Your task to perform on an android device: Open the calendar and show me this week's events Image 0: 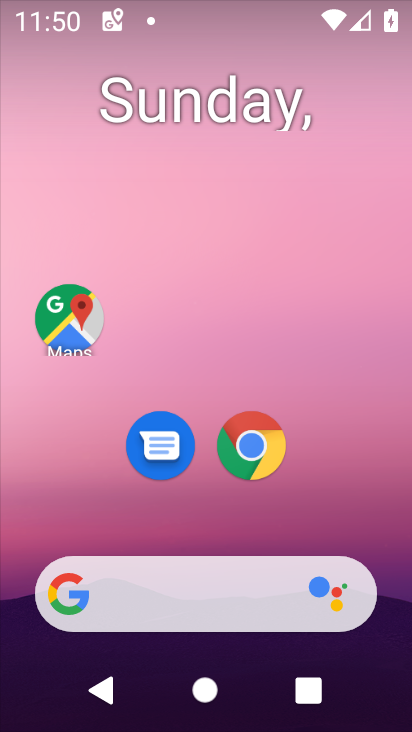
Step 0: drag from (334, 504) to (301, 35)
Your task to perform on an android device: Open the calendar and show me this week's events Image 1: 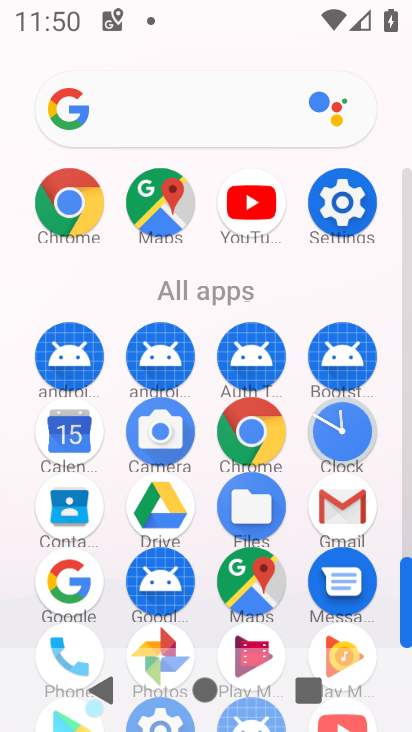
Step 1: click (71, 436)
Your task to perform on an android device: Open the calendar and show me this week's events Image 2: 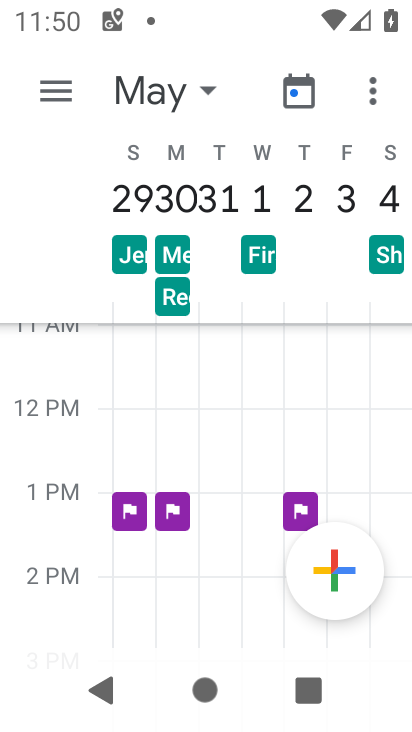
Step 2: drag from (186, 532) to (227, 581)
Your task to perform on an android device: Open the calendar and show me this week's events Image 3: 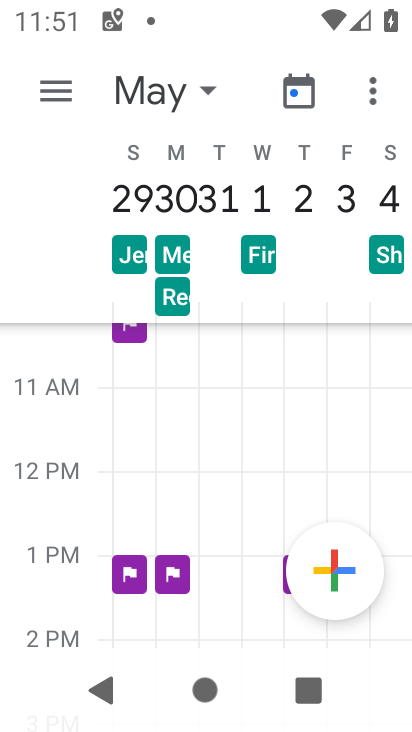
Step 3: drag from (162, 390) to (198, 582)
Your task to perform on an android device: Open the calendar and show me this week's events Image 4: 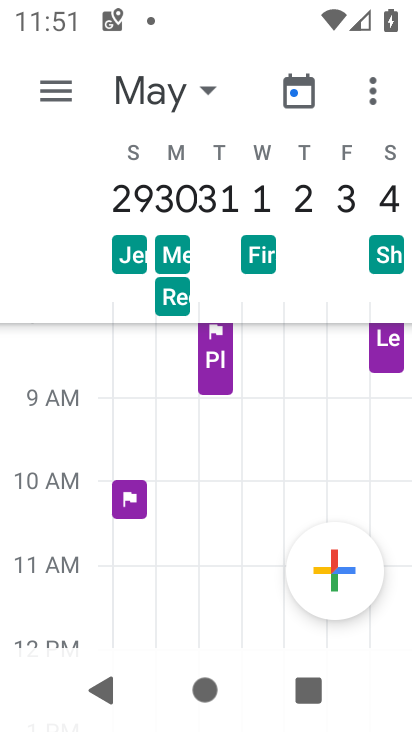
Step 4: click (67, 84)
Your task to perform on an android device: Open the calendar and show me this week's events Image 5: 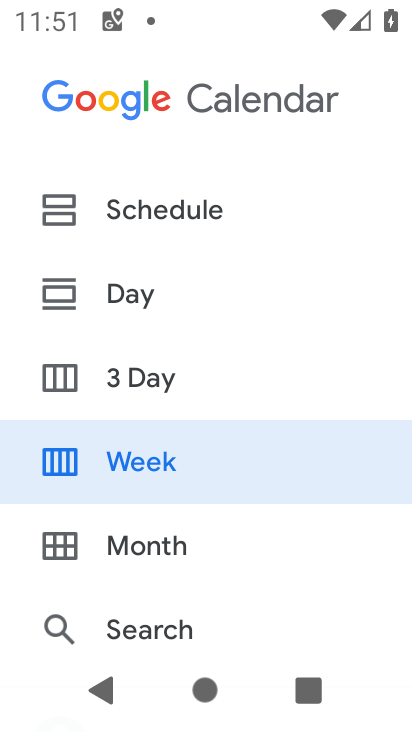
Step 5: click (216, 428)
Your task to perform on an android device: Open the calendar and show me this week's events Image 6: 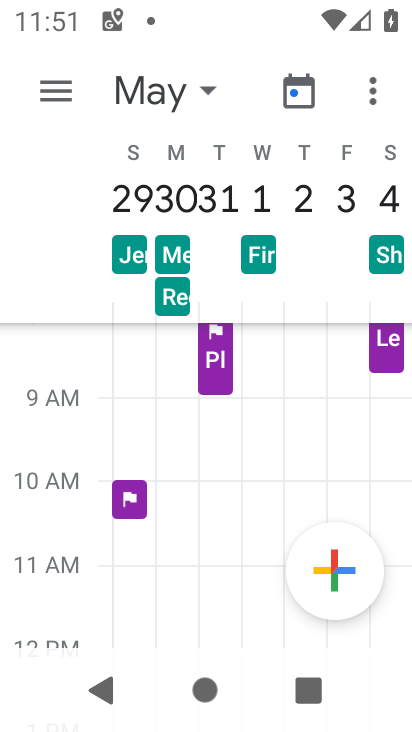
Step 6: click (228, 513)
Your task to perform on an android device: Open the calendar and show me this week's events Image 7: 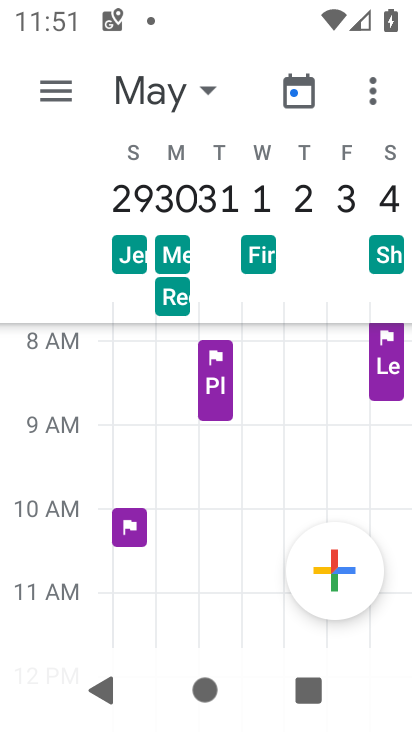
Step 7: task complete